Your task to perform on an android device: turn off javascript in the chrome app Image 0: 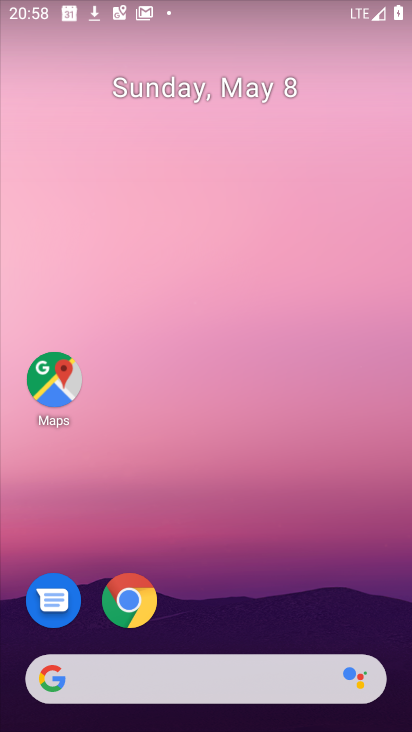
Step 0: drag from (239, 697) to (361, 219)
Your task to perform on an android device: turn off javascript in the chrome app Image 1: 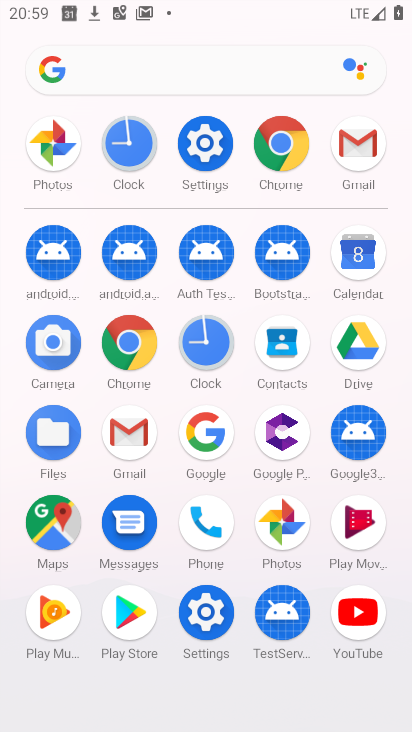
Step 1: click (285, 141)
Your task to perform on an android device: turn off javascript in the chrome app Image 2: 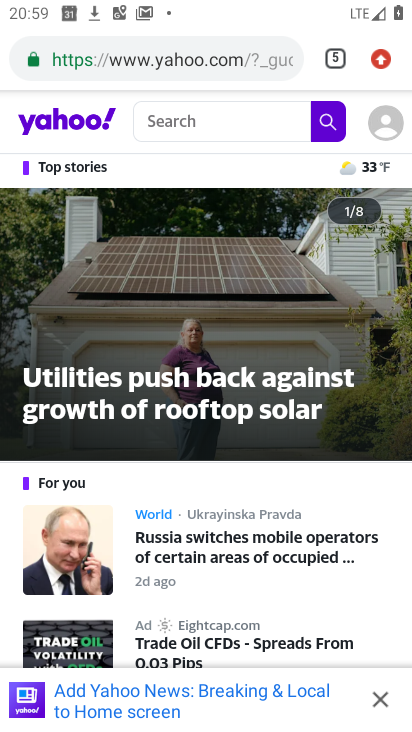
Step 2: click (390, 58)
Your task to perform on an android device: turn off javascript in the chrome app Image 3: 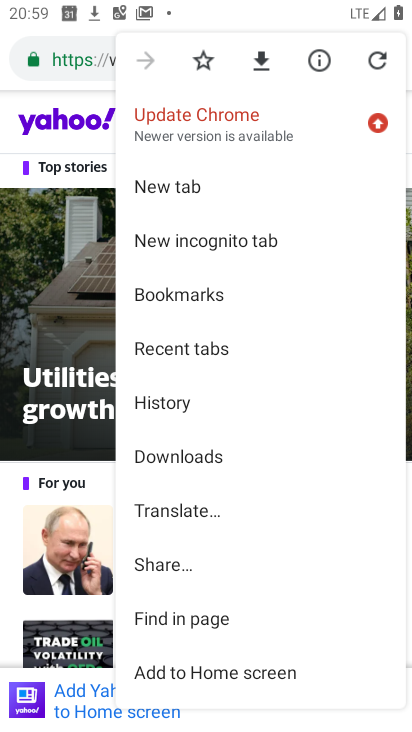
Step 3: drag from (230, 628) to (276, 476)
Your task to perform on an android device: turn off javascript in the chrome app Image 4: 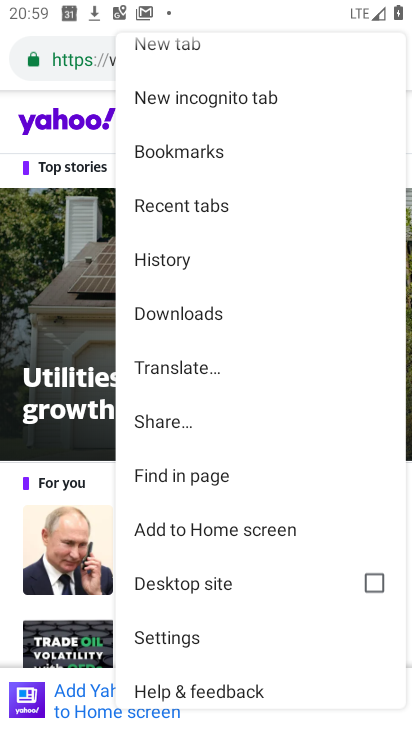
Step 4: click (211, 637)
Your task to perform on an android device: turn off javascript in the chrome app Image 5: 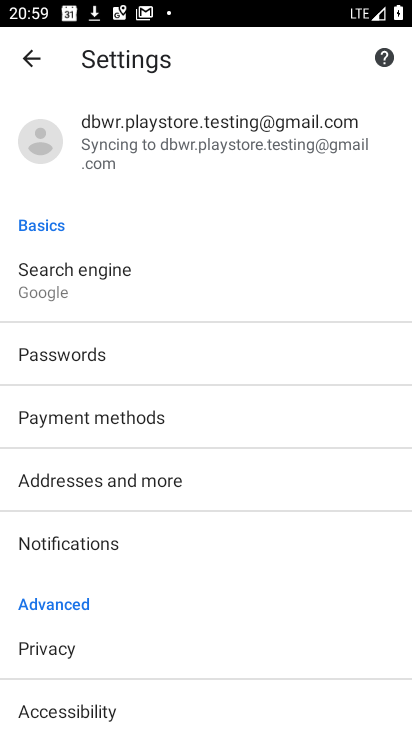
Step 5: drag from (201, 634) to (266, 387)
Your task to perform on an android device: turn off javascript in the chrome app Image 6: 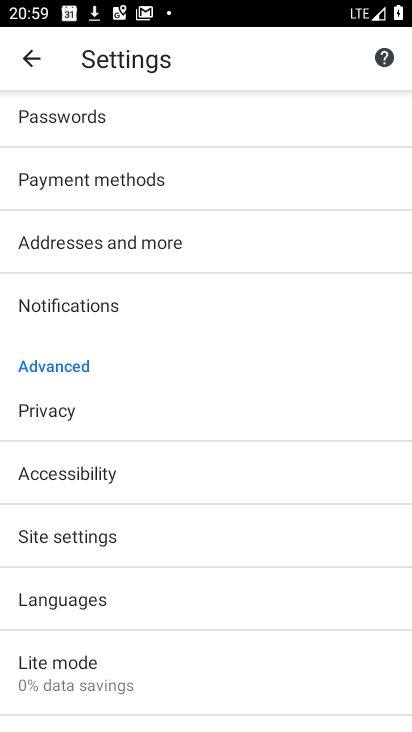
Step 6: click (121, 545)
Your task to perform on an android device: turn off javascript in the chrome app Image 7: 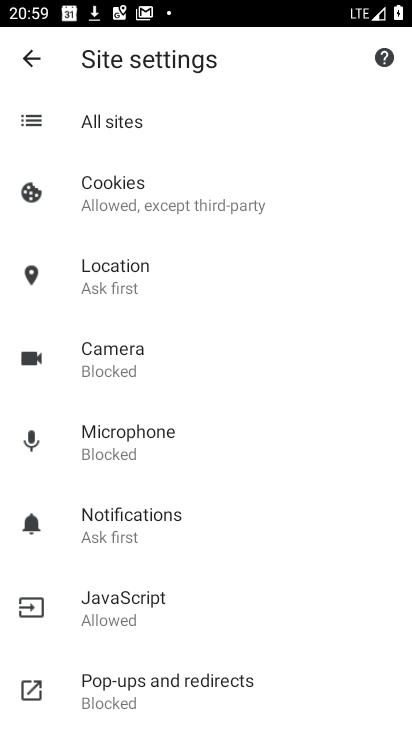
Step 7: click (142, 584)
Your task to perform on an android device: turn off javascript in the chrome app Image 8: 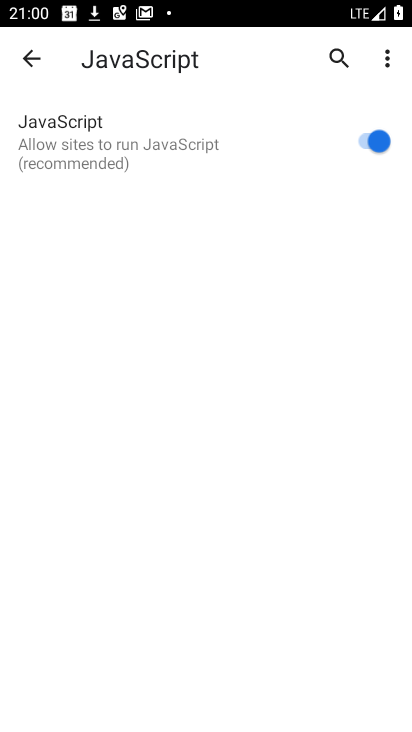
Step 8: click (172, 141)
Your task to perform on an android device: turn off javascript in the chrome app Image 9: 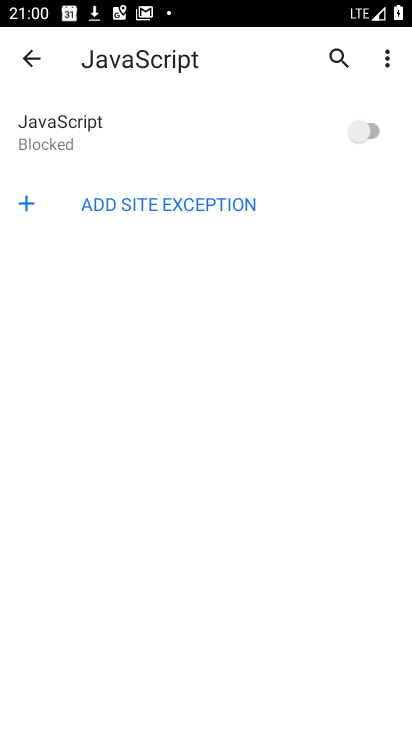
Step 9: task complete